Your task to perform on an android device: Set the phone to "Do not disturb". Image 0: 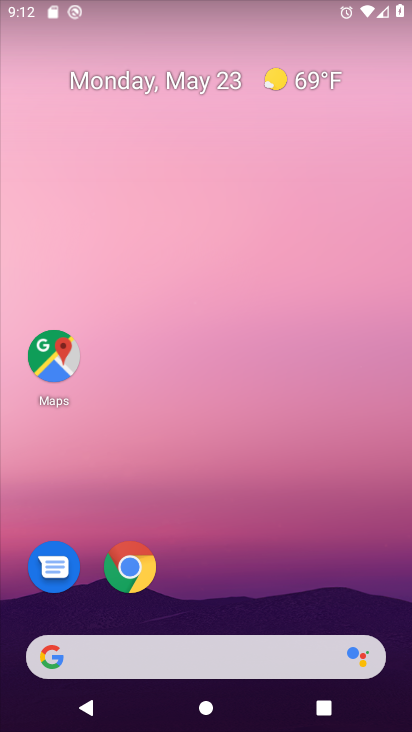
Step 0: drag from (213, 558) to (235, 284)
Your task to perform on an android device: Set the phone to "Do not disturb". Image 1: 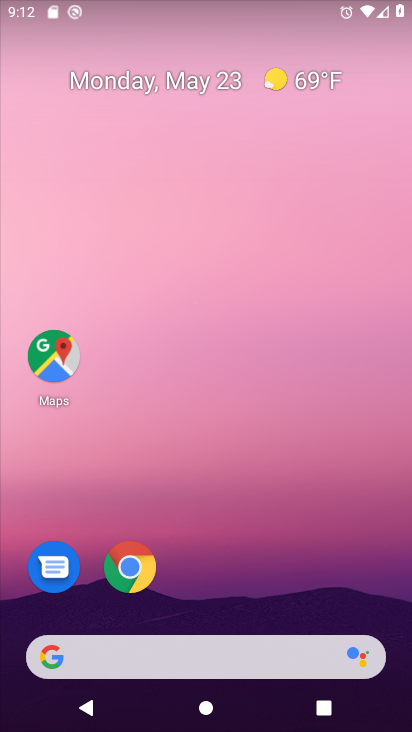
Step 1: drag from (258, 600) to (320, 3)
Your task to perform on an android device: Set the phone to "Do not disturb". Image 2: 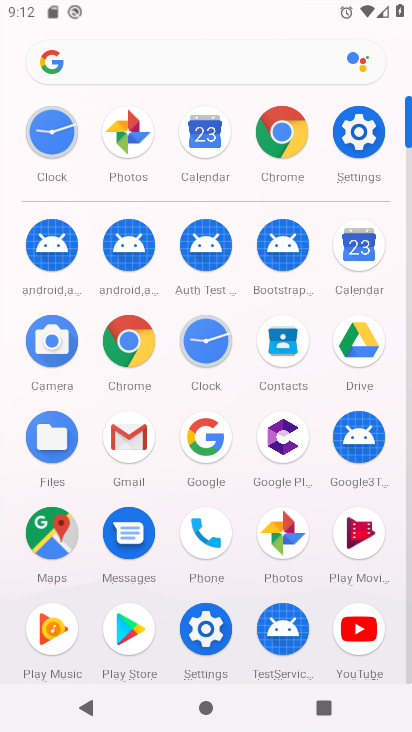
Step 2: click (362, 157)
Your task to perform on an android device: Set the phone to "Do not disturb". Image 3: 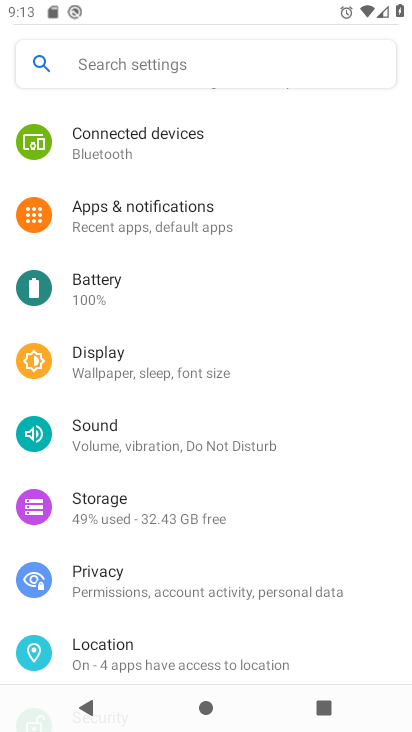
Step 3: click (143, 430)
Your task to perform on an android device: Set the phone to "Do not disturb". Image 4: 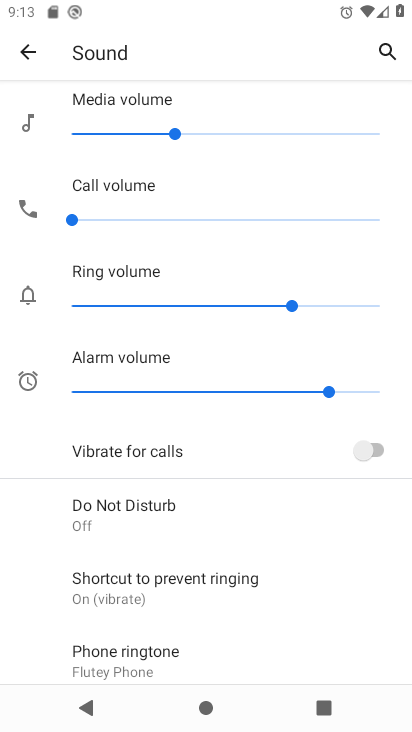
Step 4: click (146, 524)
Your task to perform on an android device: Set the phone to "Do not disturb". Image 5: 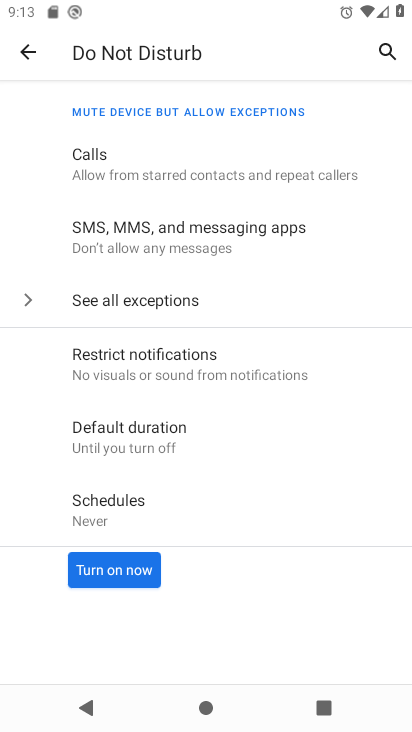
Step 5: click (144, 567)
Your task to perform on an android device: Set the phone to "Do not disturb". Image 6: 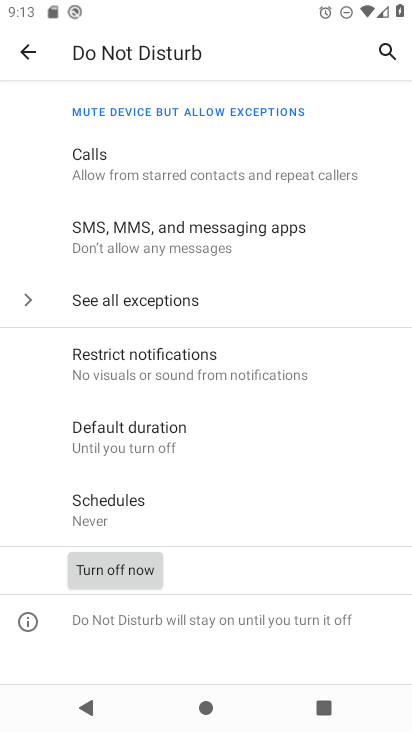
Step 6: task complete